Your task to perform on an android device: stop showing notifications on the lock screen Image 0: 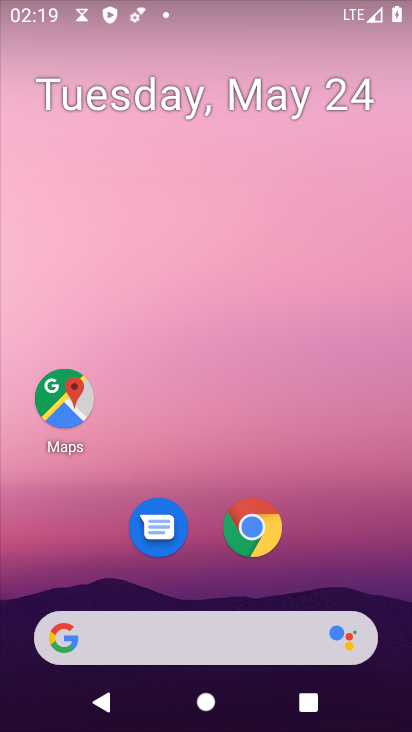
Step 0: drag from (222, 630) to (322, 111)
Your task to perform on an android device: stop showing notifications on the lock screen Image 1: 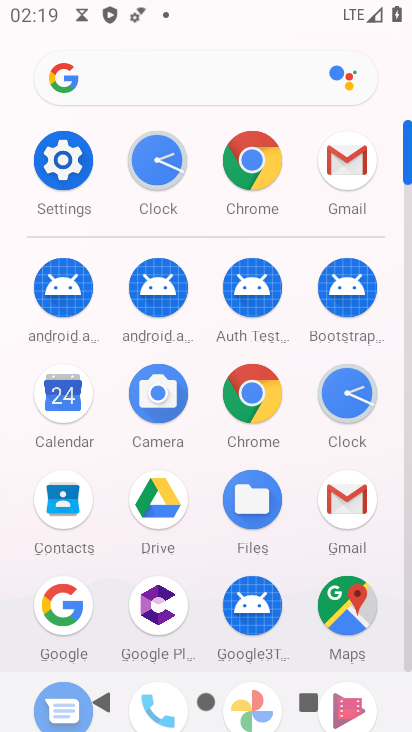
Step 1: click (59, 157)
Your task to perform on an android device: stop showing notifications on the lock screen Image 2: 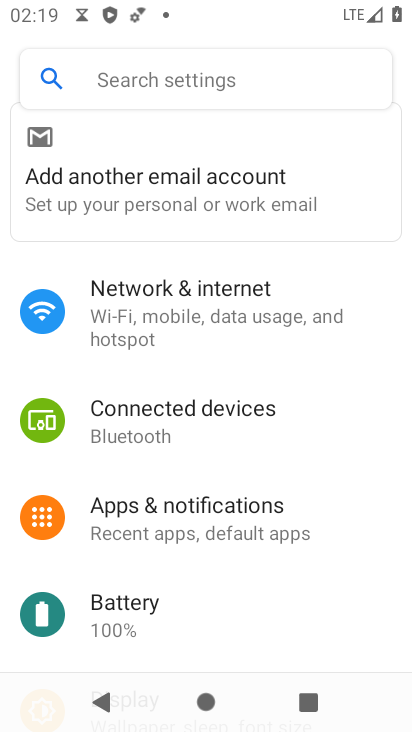
Step 2: click (182, 513)
Your task to perform on an android device: stop showing notifications on the lock screen Image 3: 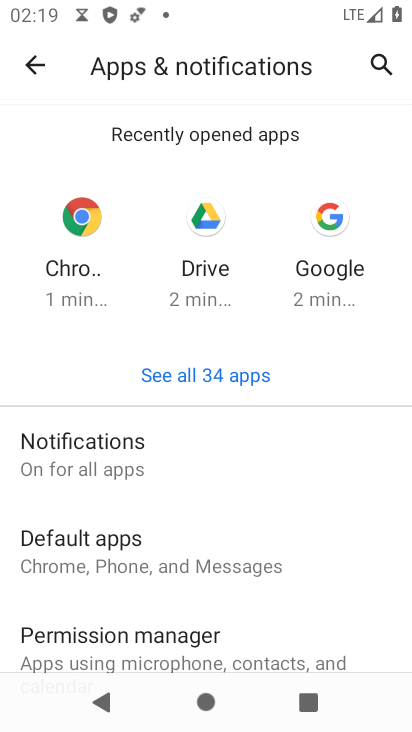
Step 3: click (91, 470)
Your task to perform on an android device: stop showing notifications on the lock screen Image 4: 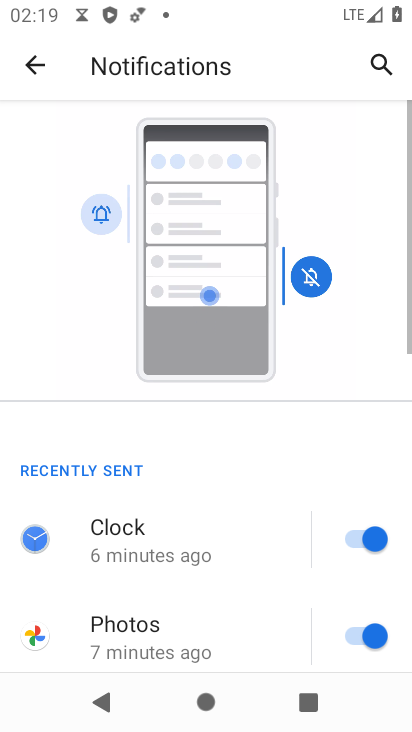
Step 4: drag from (213, 602) to (335, 180)
Your task to perform on an android device: stop showing notifications on the lock screen Image 5: 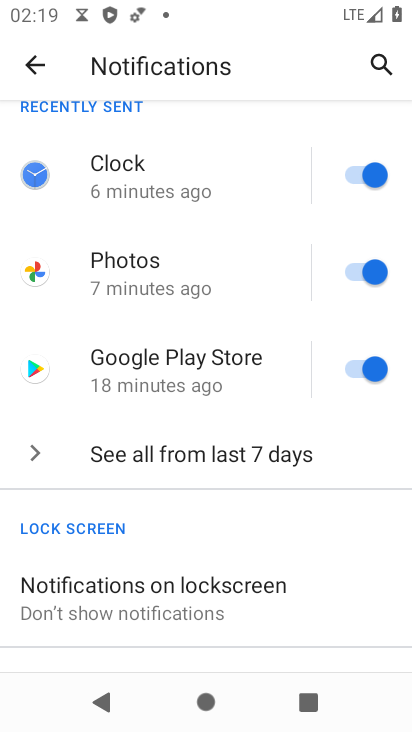
Step 5: click (216, 593)
Your task to perform on an android device: stop showing notifications on the lock screen Image 6: 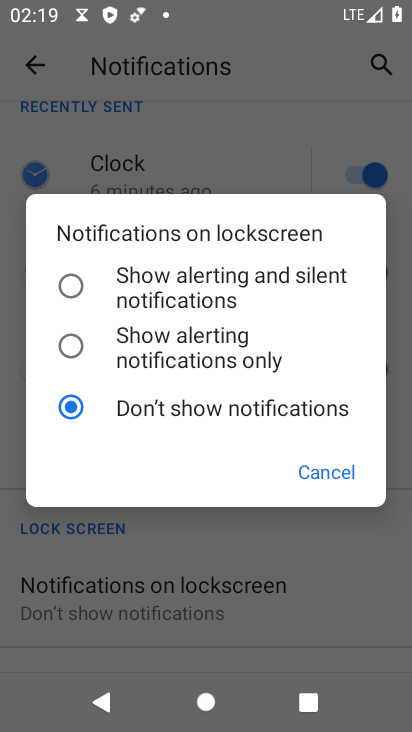
Step 6: task complete